Your task to perform on an android device: Go to wifi settings Image 0: 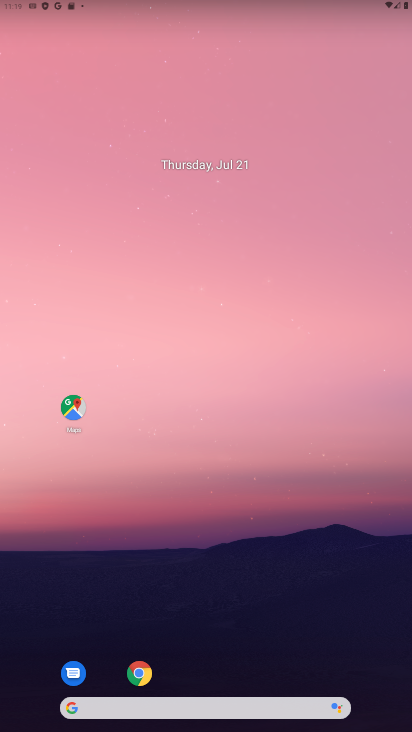
Step 0: press home button
Your task to perform on an android device: Go to wifi settings Image 1: 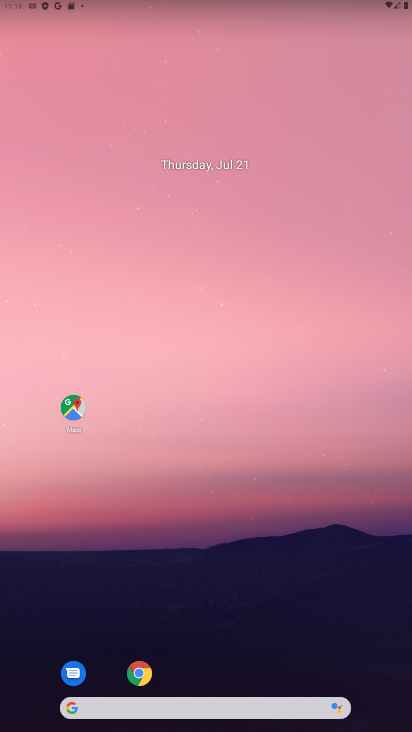
Step 1: drag from (211, 281) to (215, 6)
Your task to perform on an android device: Go to wifi settings Image 2: 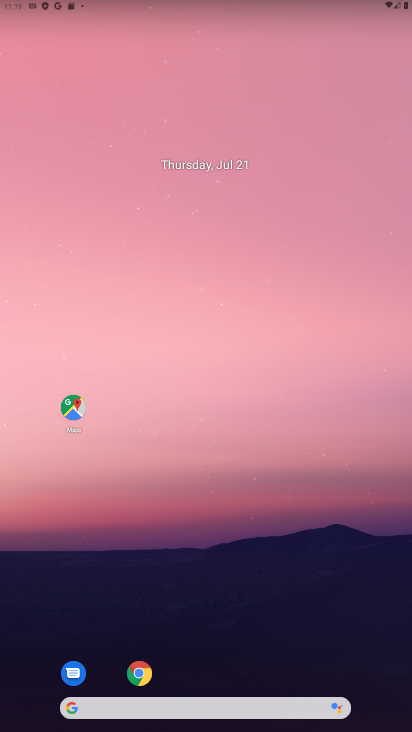
Step 2: drag from (206, 599) to (211, 30)
Your task to perform on an android device: Go to wifi settings Image 3: 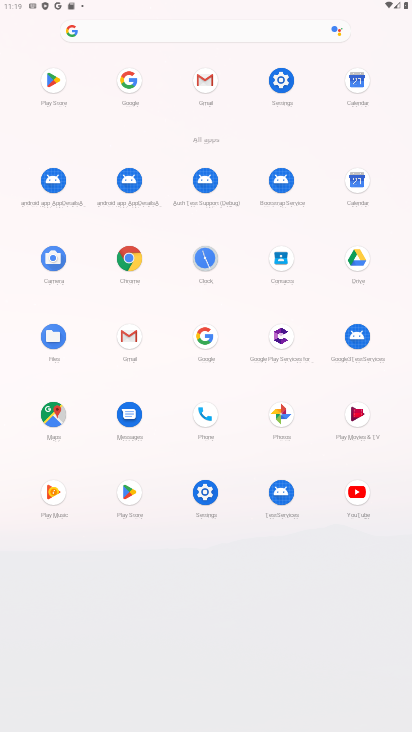
Step 3: click (281, 77)
Your task to perform on an android device: Go to wifi settings Image 4: 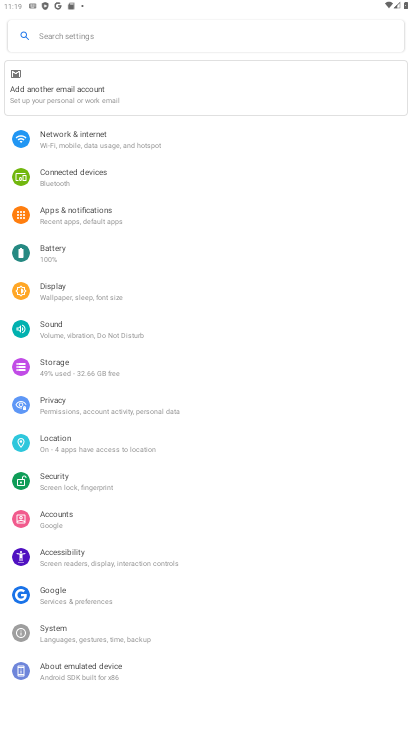
Step 4: click (88, 139)
Your task to perform on an android device: Go to wifi settings Image 5: 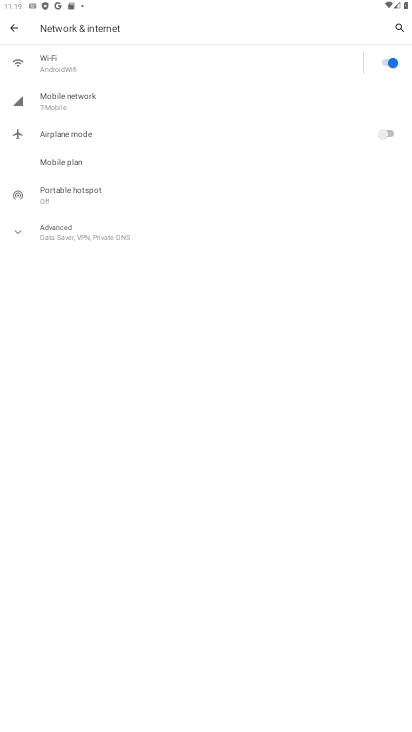
Step 5: click (154, 62)
Your task to perform on an android device: Go to wifi settings Image 6: 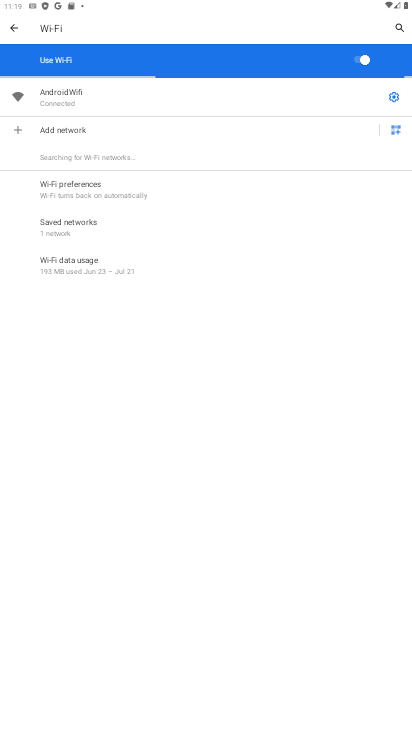
Step 6: task complete